Your task to perform on an android device: check battery use Image 0: 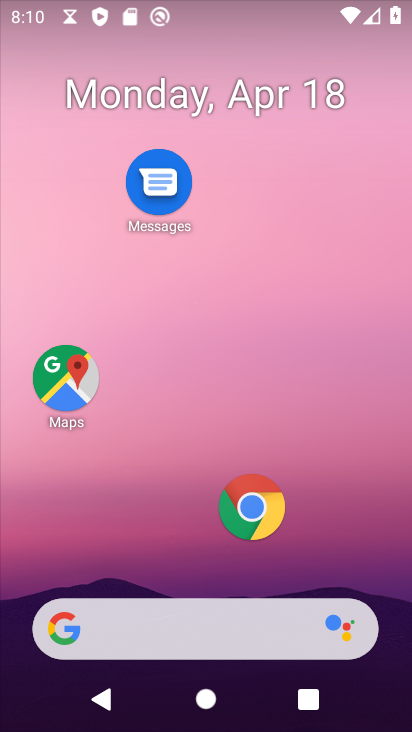
Step 0: drag from (198, 578) to (211, 267)
Your task to perform on an android device: check battery use Image 1: 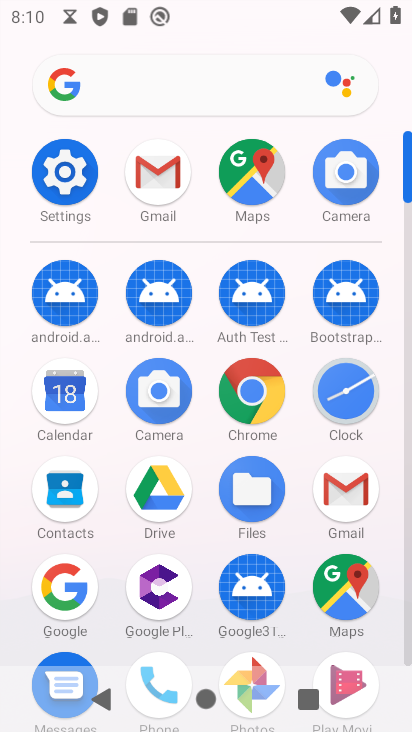
Step 1: click (57, 175)
Your task to perform on an android device: check battery use Image 2: 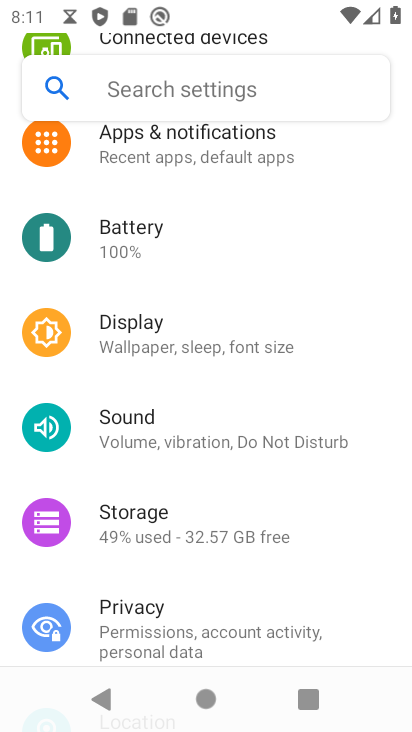
Step 2: click (139, 239)
Your task to perform on an android device: check battery use Image 3: 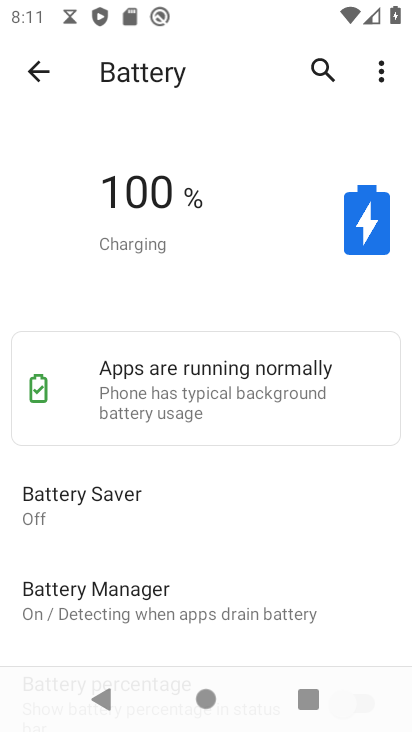
Step 3: click (373, 68)
Your task to perform on an android device: check battery use Image 4: 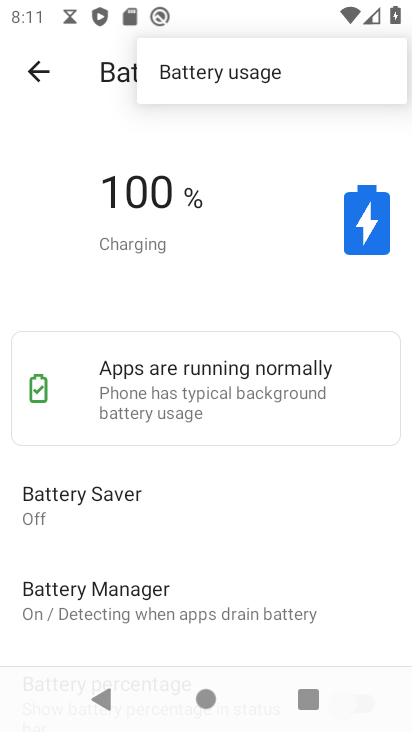
Step 4: click (195, 69)
Your task to perform on an android device: check battery use Image 5: 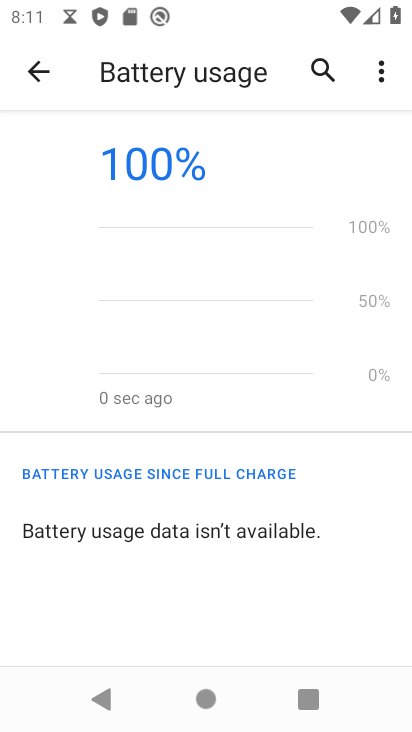
Step 5: task complete